Your task to perform on an android device: turn on location history Image 0: 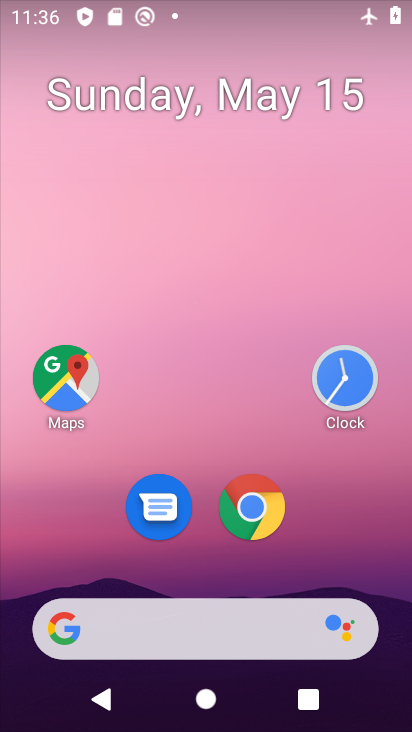
Step 0: drag from (310, 548) to (319, 247)
Your task to perform on an android device: turn on location history Image 1: 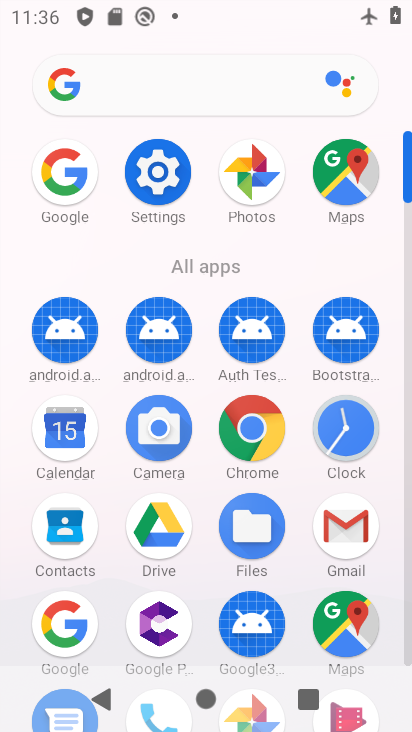
Step 1: click (139, 175)
Your task to perform on an android device: turn on location history Image 2: 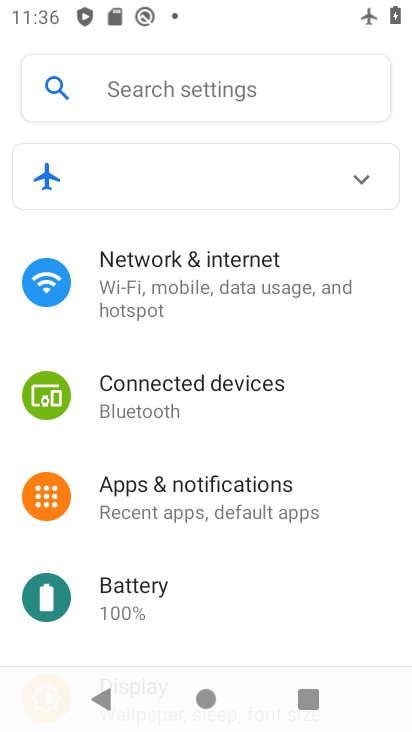
Step 2: drag from (238, 603) to (267, 257)
Your task to perform on an android device: turn on location history Image 3: 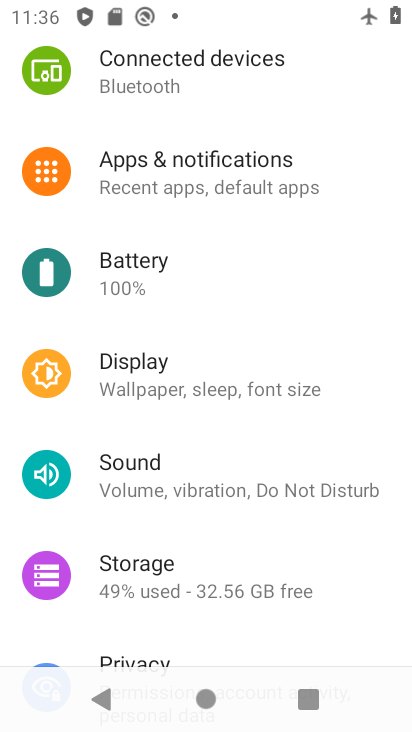
Step 3: drag from (249, 595) to (249, 239)
Your task to perform on an android device: turn on location history Image 4: 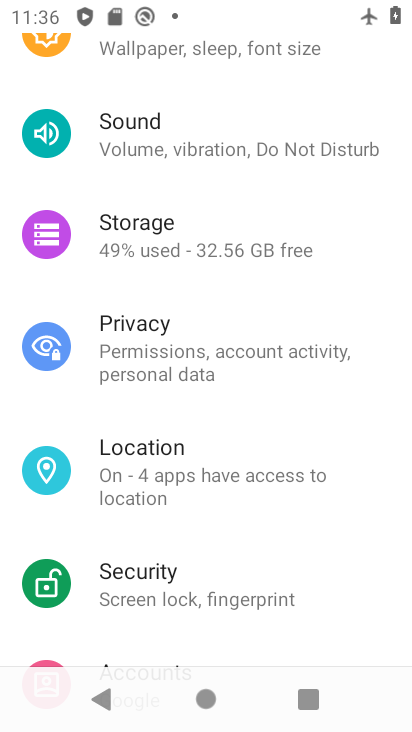
Step 4: click (211, 475)
Your task to perform on an android device: turn on location history Image 5: 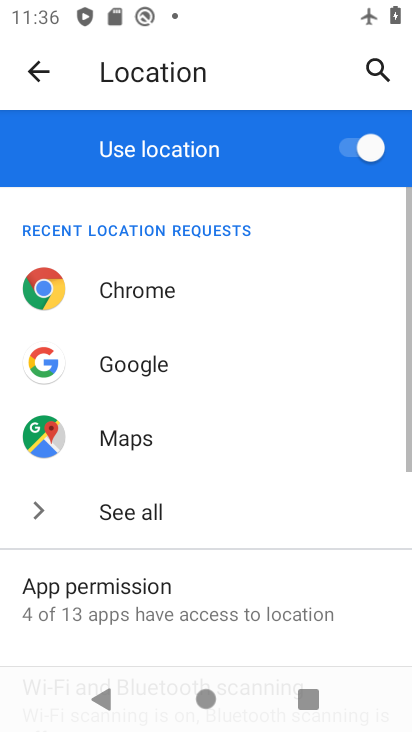
Step 5: drag from (63, 616) to (133, 178)
Your task to perform on an android device: turn on location history Image 6: 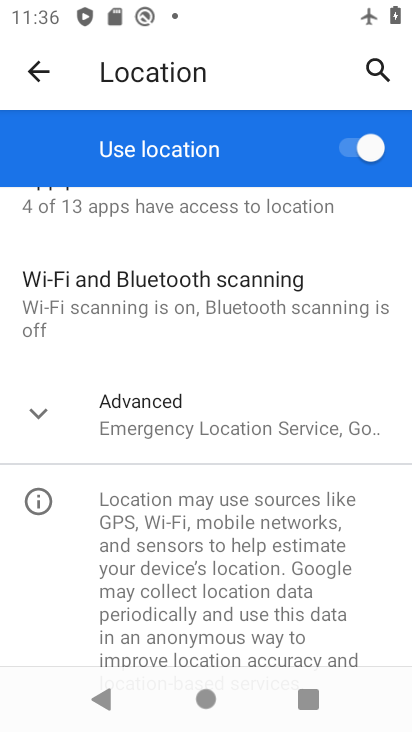
Step 6: click (37, 417)
Your task to perform on an android device: turn on location history Image 7: 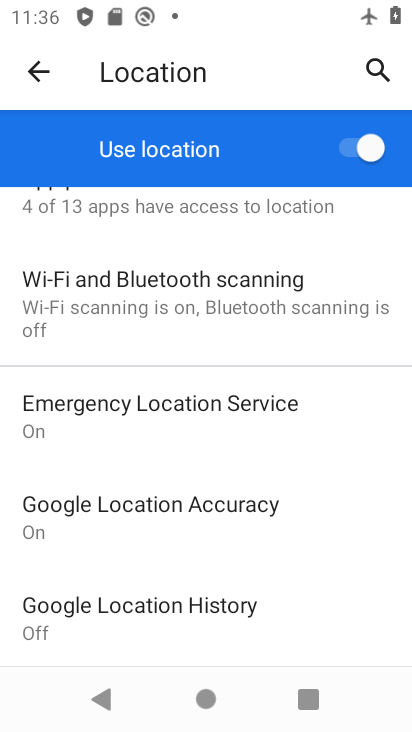
Step 7: click (227, 614)
Your task to perform on an android device: turn on location history Image 8: 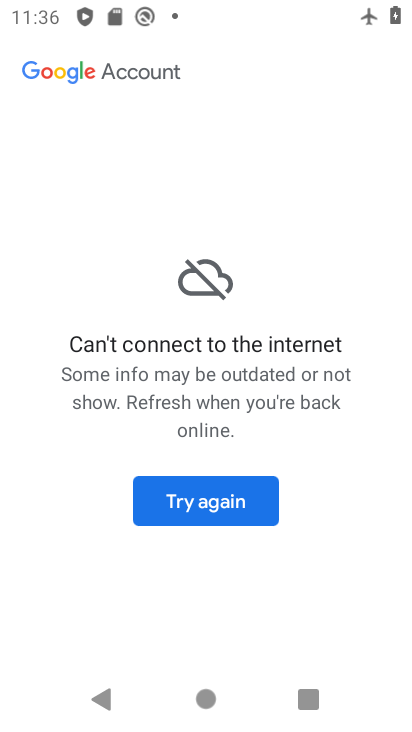
Step 8: task complete